Your task to perform on an android device: change the clock display to digital Image 0: 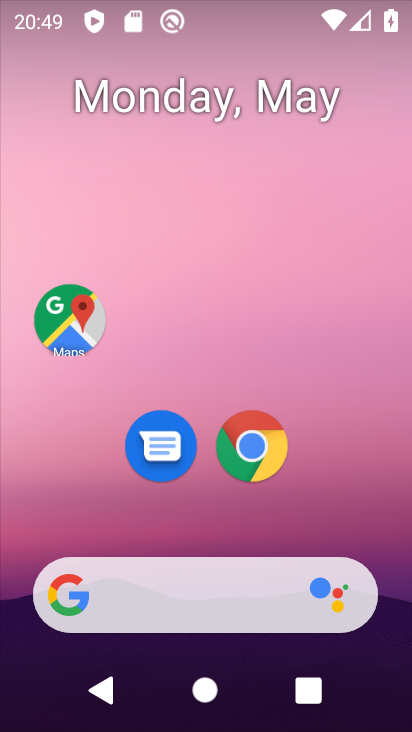
Step 0: drag from (335, 460) to (353, 50)
Your task to perform on an android device: change the clock display to digital Image 1: 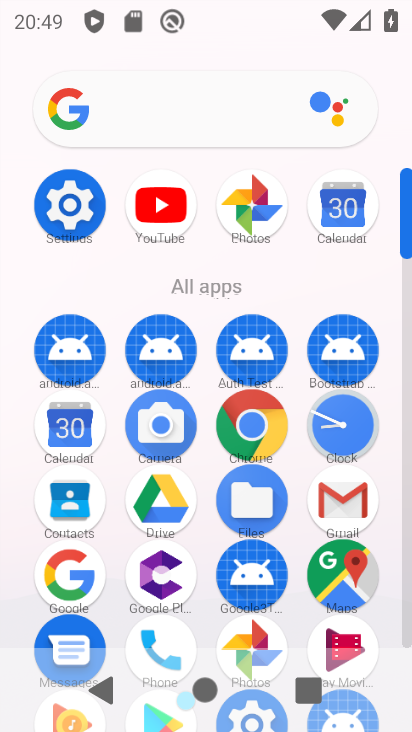
Step 1: click (353, 425)
Your task to perform on an android device: change the clock display to digital Image 2: 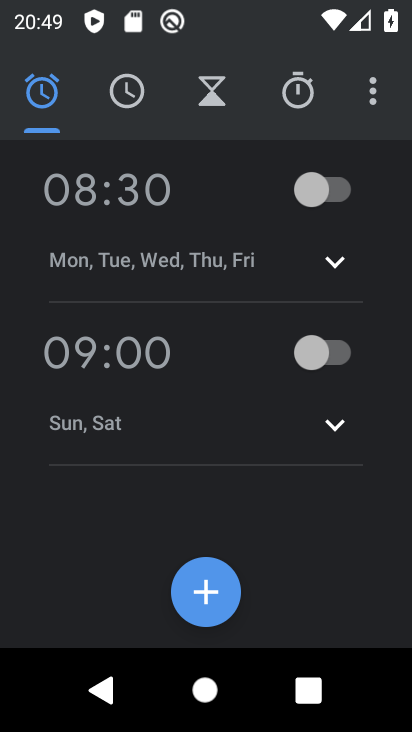
Step 2: click (373, 79)
Your task to perform on an android device: change the clock display to digital Image 3: 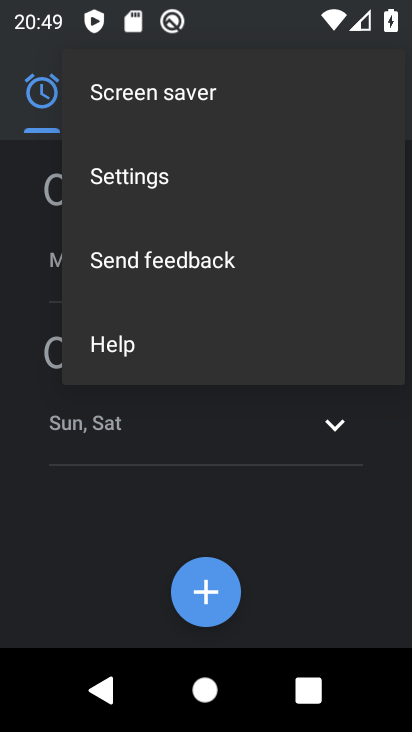
Step 3: click (167, 199)
Your task to perform on an android device: change the clock display to digital Image 4: 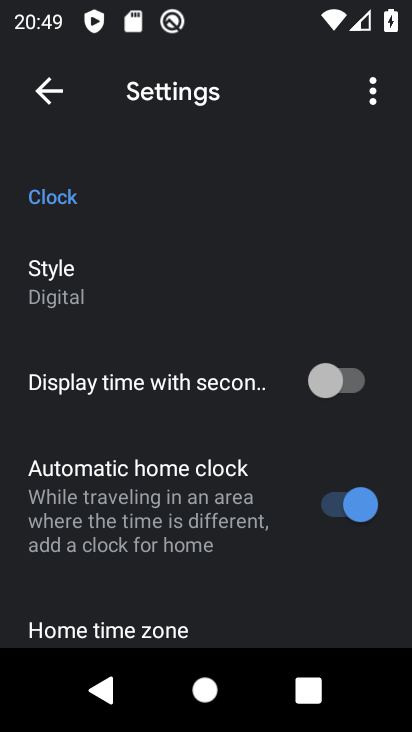
Step 4: task complete